Your task to perform on an android device: open sync settings in chrome Image 0: 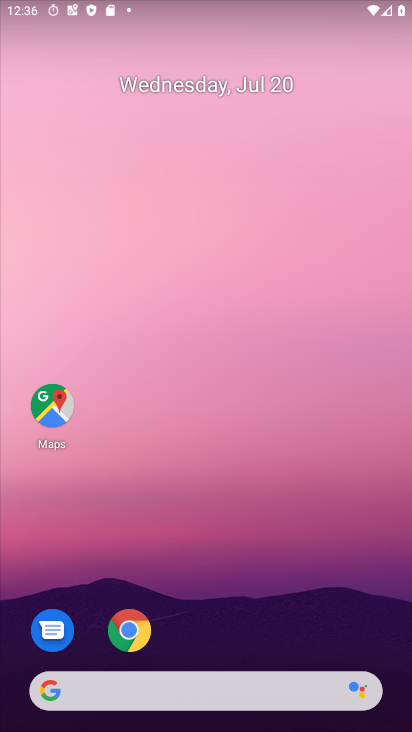
Step 0: click (140, 629)
Your task to perform on an android device: open sync settings in chrome Image 1: 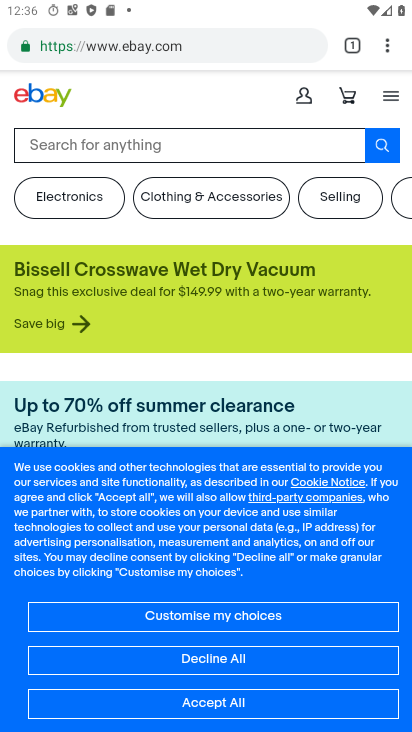
Step 1: click (385, 47)
Your task to perform on an android device: open sync settings in chrome Image 2: 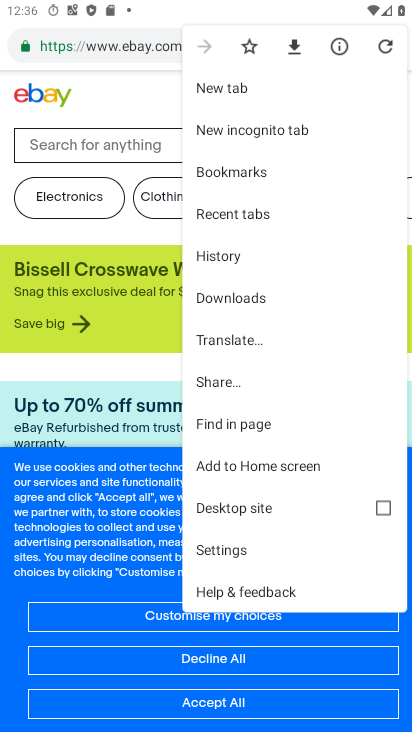
Step 2: click (223, 545)
Your task to perform on an android device: open sync settings in chrome Image 3: 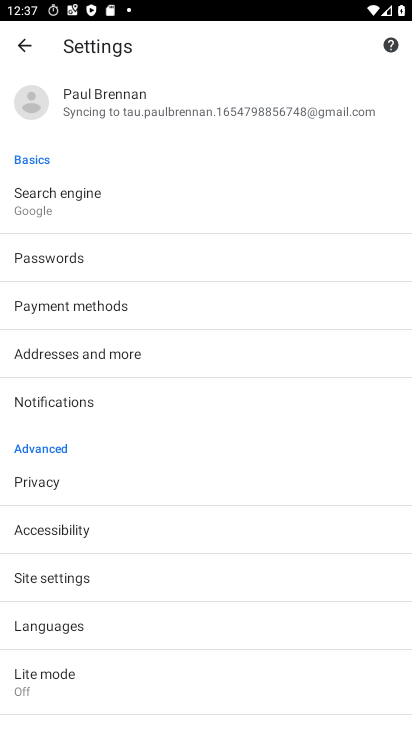
Step 3: click (127, 114)
Your task to perform on an android device: open sync settings in chrome Image 4: 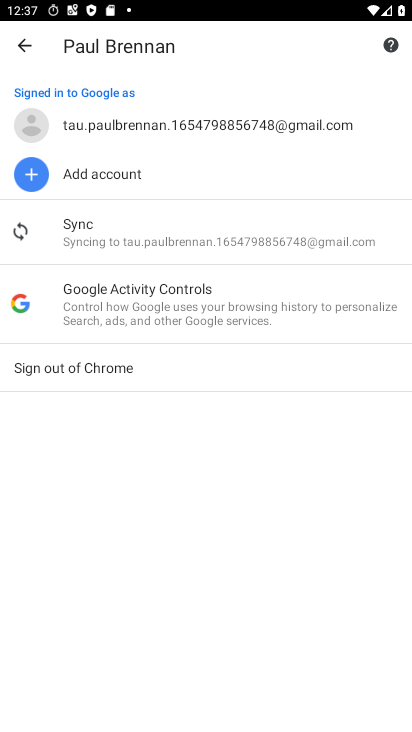
Step 4: click (106, 243)
Your task to perform on an android device: open sync settings in chrome Image 5: 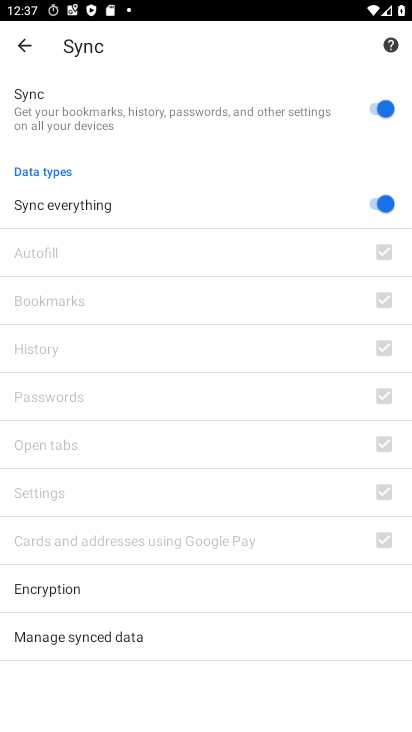
Step 5: task complete